Your task to perform on an android device: set default search engine in the chrome app Image 0: 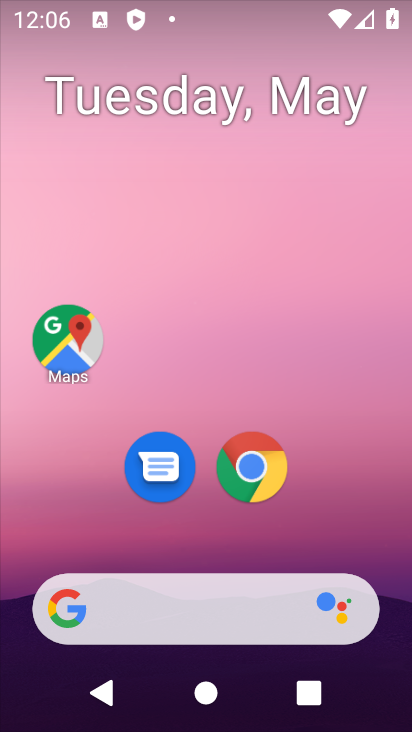
Step 0: click (263, 469)
Your task to perform on an android device: set default search engine in the chrome app Image 1: 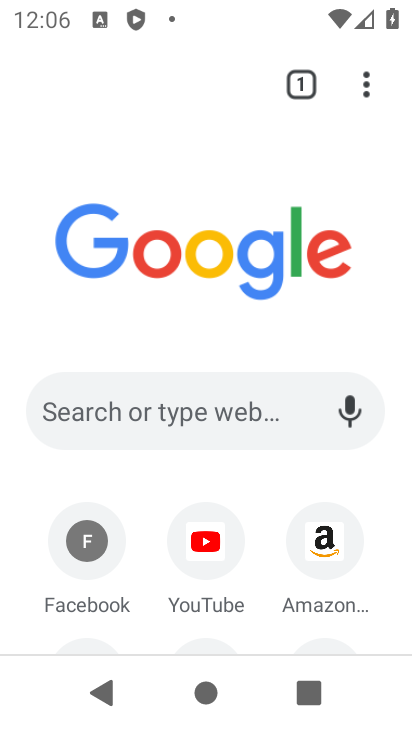
Step 1: click (371, 86)
Your task to perform on an android device: set default search engine in the chrome app Image 2: 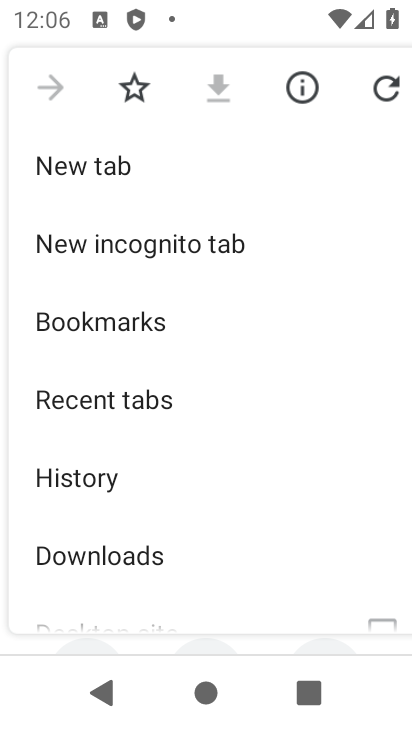
Step 2: drag from (190, 538) to (224, 158)
Your task to perform on an android device: set default search engine in the chrome app Image 3: 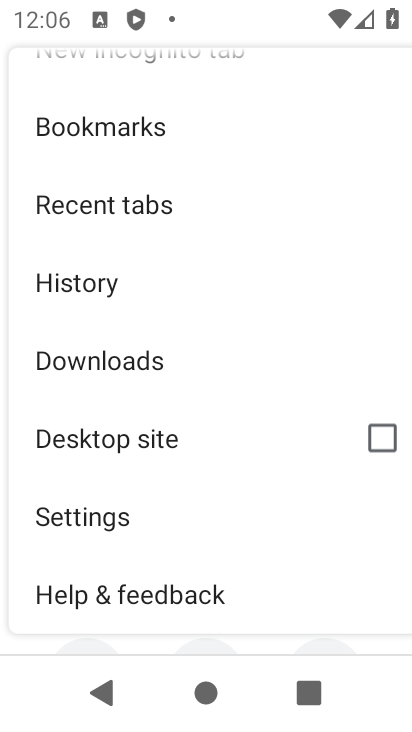
Step 3: click (109, 516)
Your task to perform on an android device: set default search engine in the chrome app Image 4: 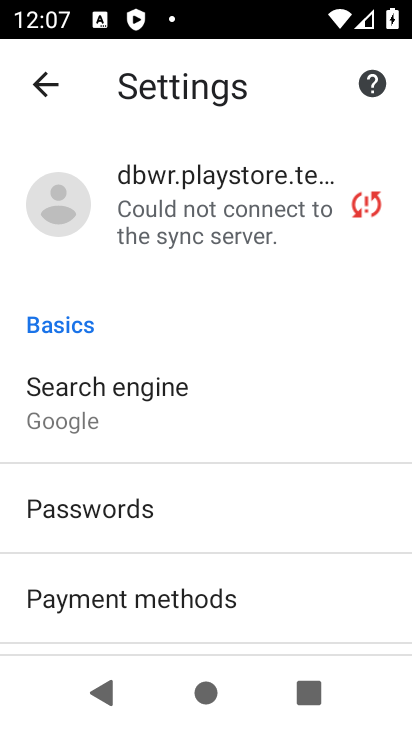
Step 4: click (139, 421)
Your task to perform on an android device: set default search engine in the chrome app Image 5: 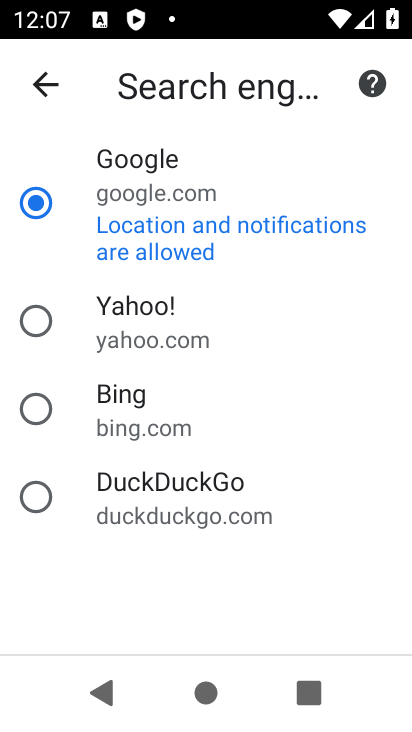
Step 5: task complete